Your task to perform on an android device: Open eBay Image 0: 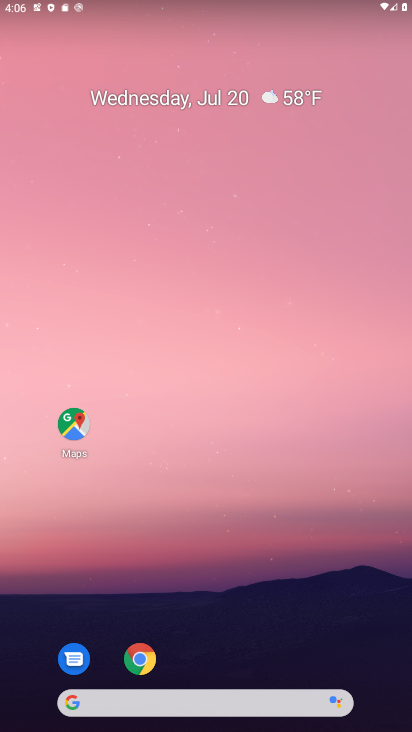
Step 0: click (168, 145)
Your task to perform on an android device: Open eBay Image 1: 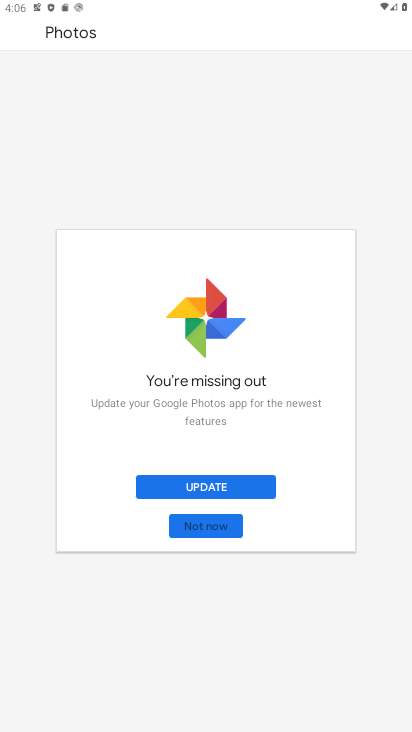
Step 1: click (207, 526)
Your task to perform on an android device: Open eBay Image 2: 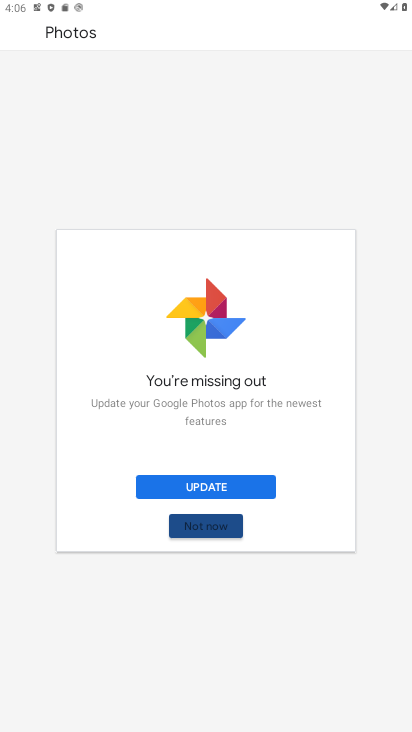
Step 2: click (192, 512)
Your task to perform on an android device: Open eBay Image 3: 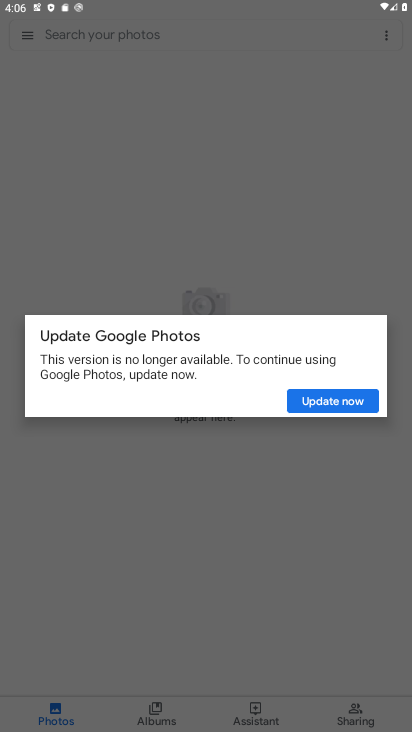
Step 3: click (320, 404)
Your task to perform on an android device: Open eBay Image 4: 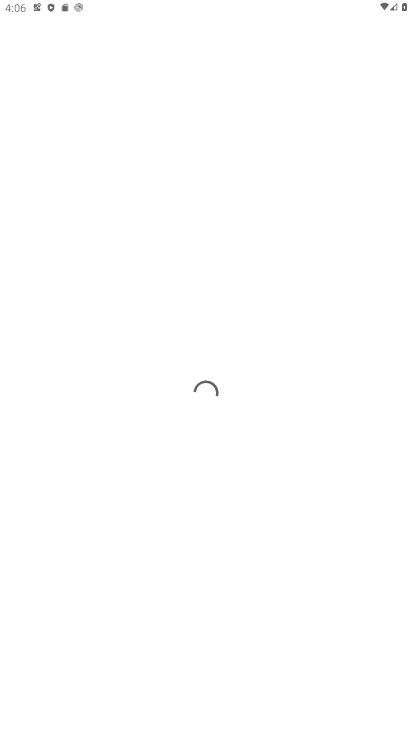
Step 4: press back button
Your task to perform on an android device: Open eBay Image 5: 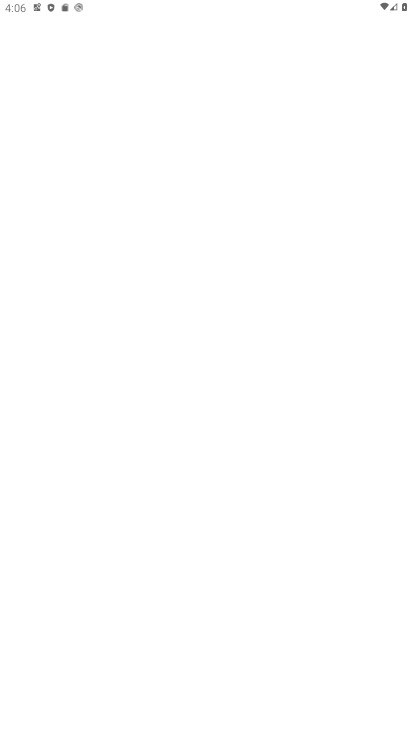
Step 5: press back button
Your task to perform on an android device: Open eBay Image 6: 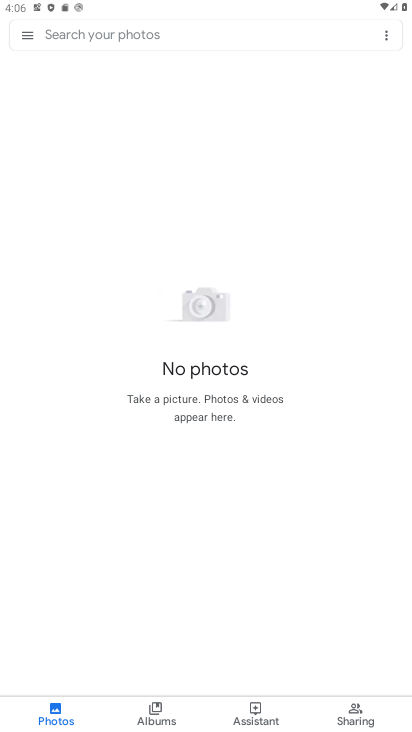
Step 6: press back button
Your task to perform on an android device: Open eBay Image 7: 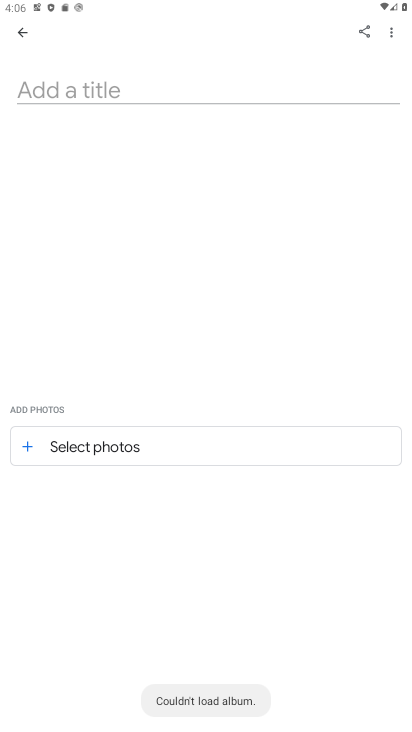
Step 7: press home button
Your task to perform on an android device: Open eBay Image 8: 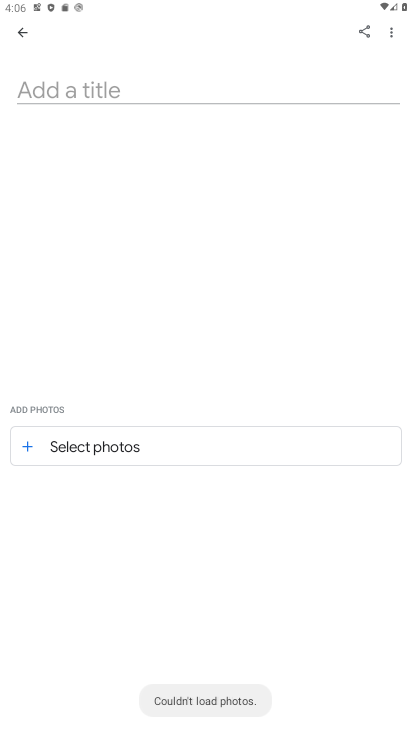
Step 8: press home button
Your task to perform on an android device: Open eBay Image 9: 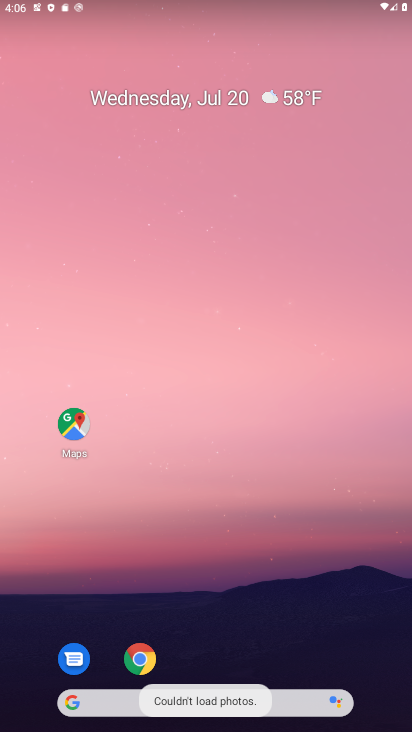
Step 9: press back button
Your task to perform on an android device: Open eBay Image 10: 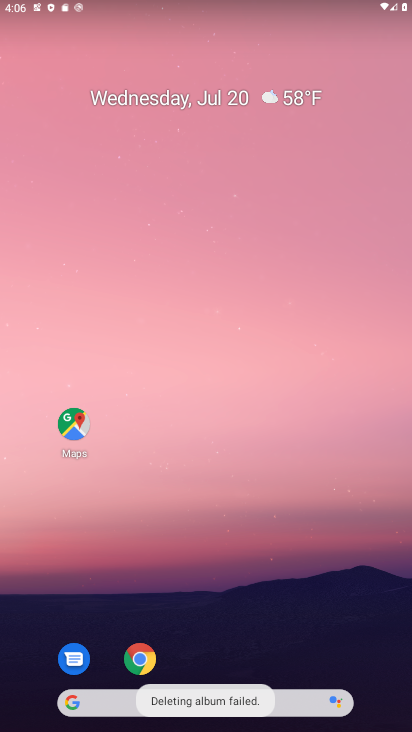
Step 10: drag from (279, 621) to (181, 277)
Your task to perform on an android device: Open eBay Image 11: 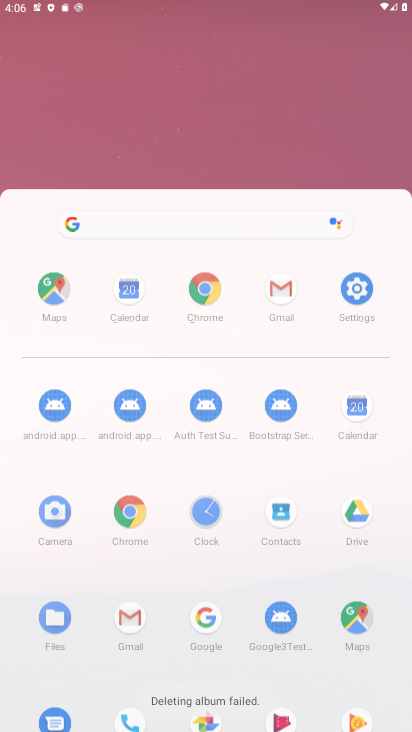
Step 11: drag from (215, 543) to (99, 123)
Your task to perform on an android device: Open eBay Image 12: 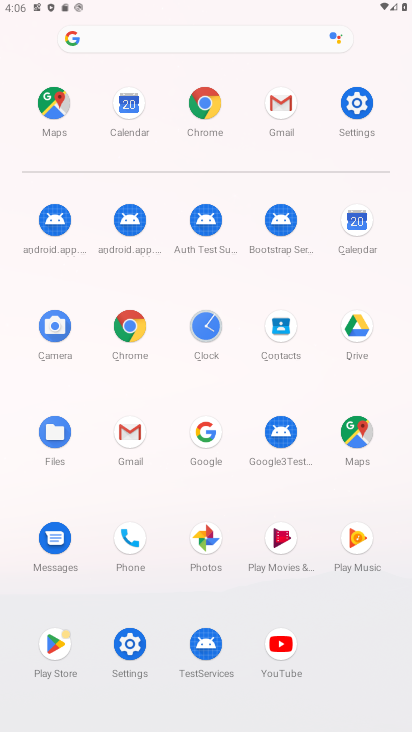
Step 12: click (192, 103)
Your task to perform on an android device: Open eBay Image 13: 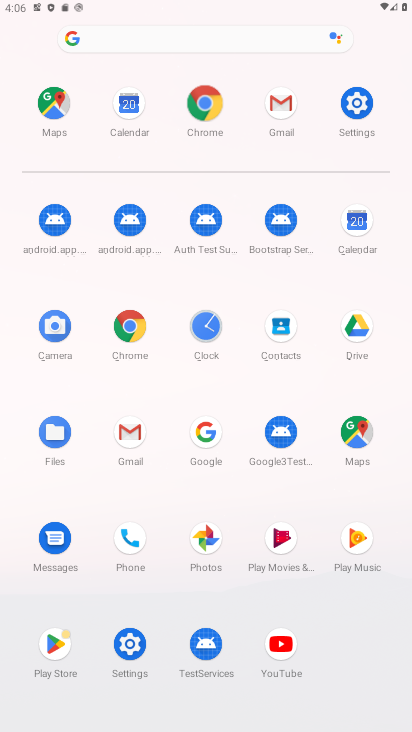
Step 13: click (197, 96)
Your task to perform on an android device: Open eBay Image 14: 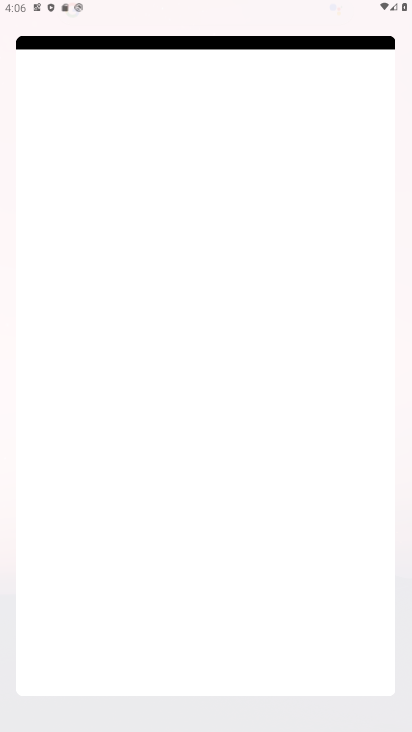
Step 14: click (197, 95)
Your task to perform on an android device: Open eBay Image 15: 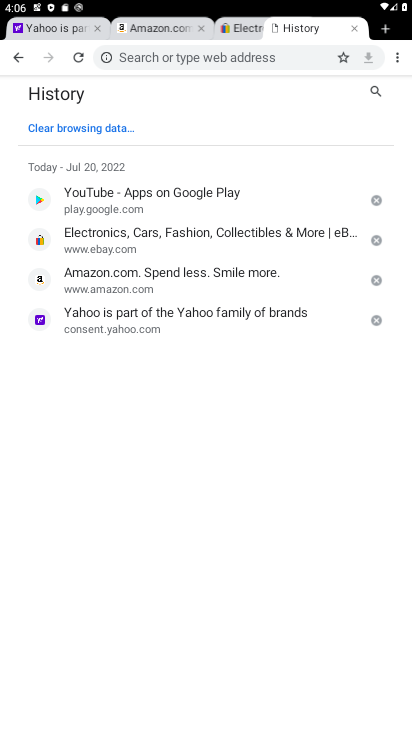
Step 15: drag from (395, 61) to (274, 56)
Your task to perform on an android device: Open eBay Image 16: 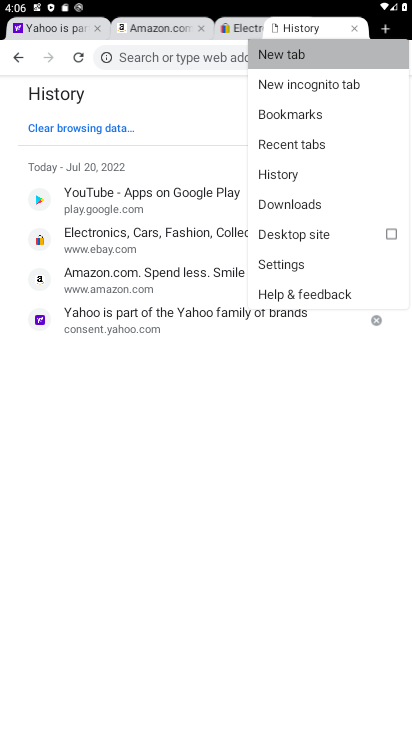
Step 16: click (276, 52)
Your task to perform on an android device: Open eBay Image 17: 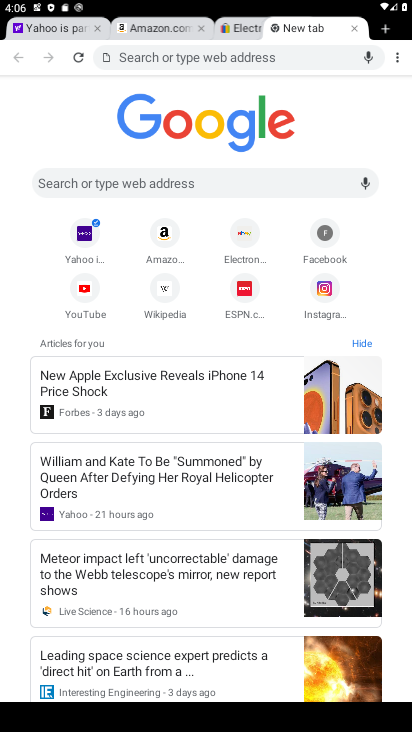
Step 17: click (241, 236)
Your task to perform on an android device: Open eBay Image 18: 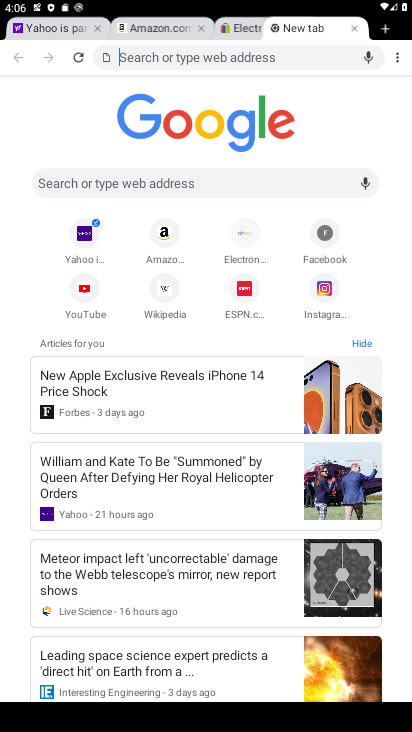
Step 18: click (247, 236)
Your task to perform on an android device: Open eBay Image 19: 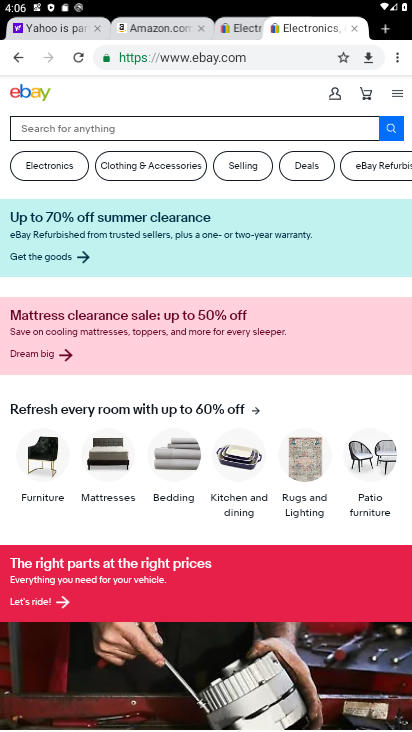
Step 19: task complete